Your task to perform on an android device: Show me productivity apps on the Play Store Image 0: 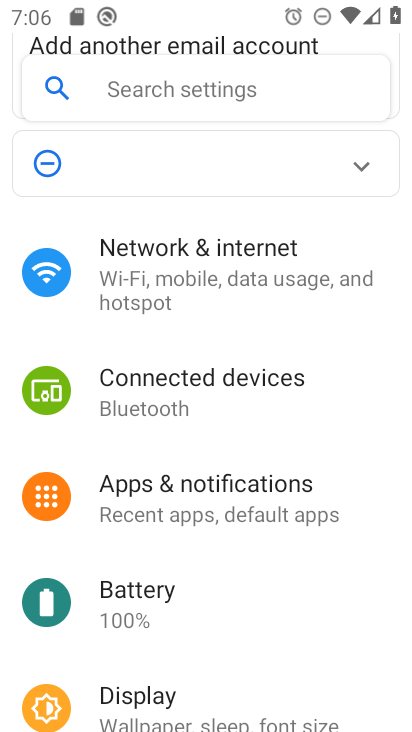
Step 0: press home button
Your task to perform on an android device: Show me productivity apps on the Play Store Image 1: 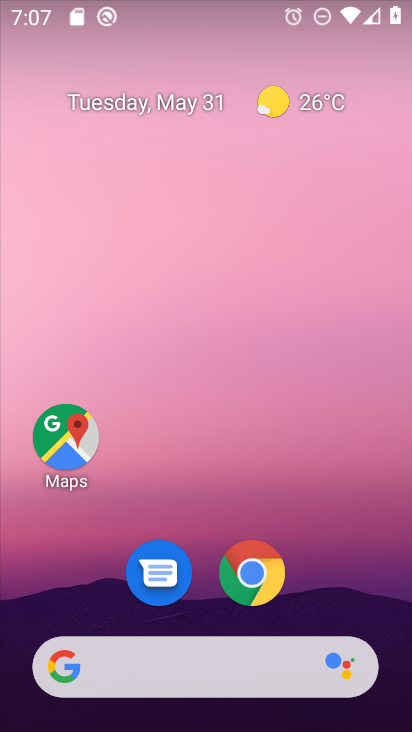
Step 1: drag from (394, 637) to (259, 57)
Your task to perform on an android device: Show me productivity apps on the Play Store Image 2: 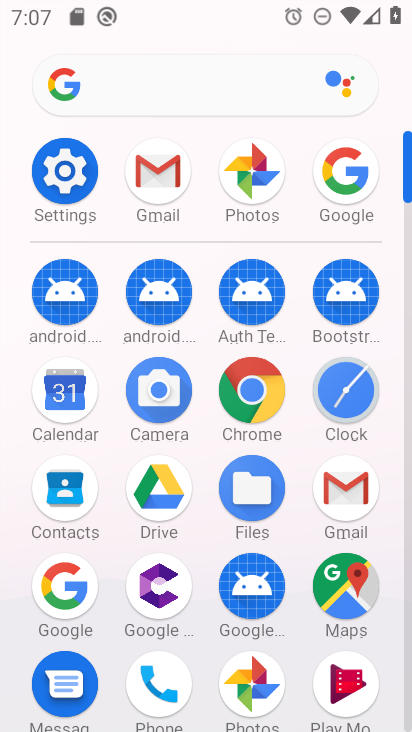
Step 2: drag from (158, 675) to (171, 182)
Your task to perform on an android device: Show me productivity apps on the Play Store Image 3: 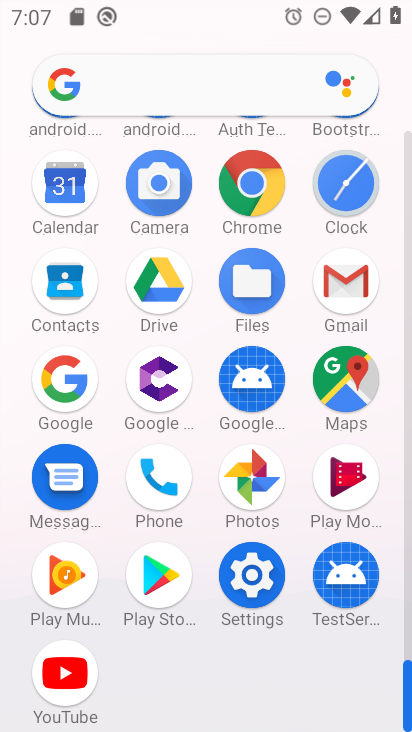
Step 3: click (147, 574)
Your task to perform on an android device: Show me productivity apps on the Play Store Image 4: 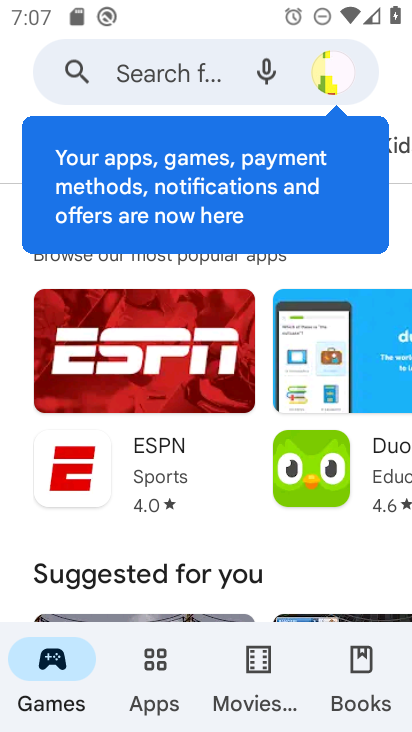
Step 4: click (150, 659)
Your task to perform on an android device: Show me productivity apps on the Play Store Image 5: 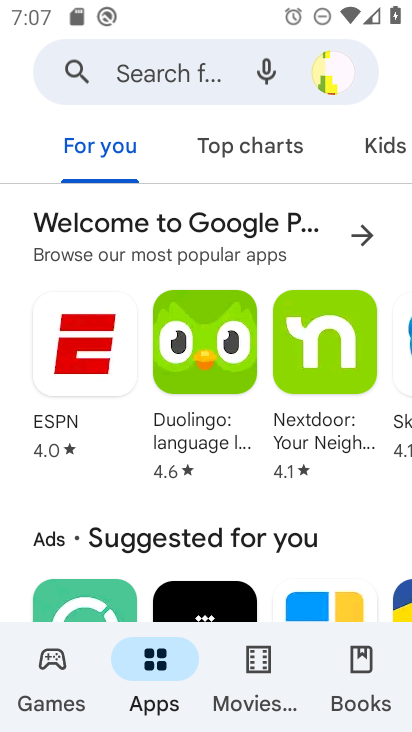
Step 5: task complete